Your task to perform on an android device: Go to internet settings Image 0: 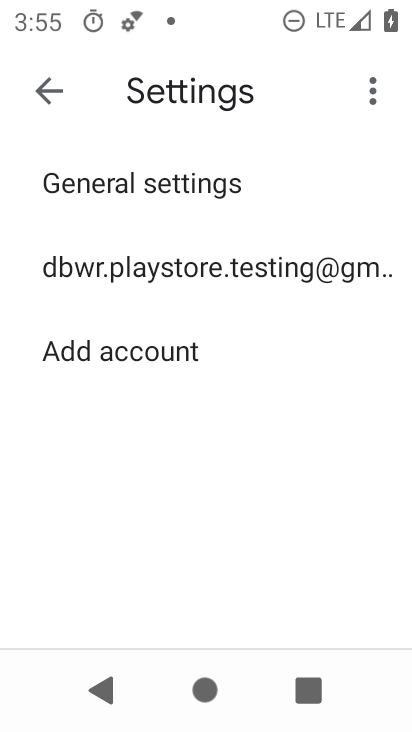
Step 0: press back button
Your task to perform on an android device: Go to internet settings Image 1: 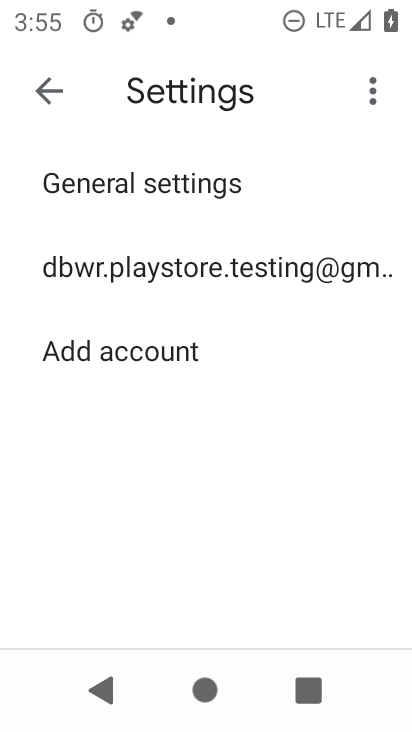
Step 1: press home button
Your task to perform on an android device: Go to internet settings Image 2: 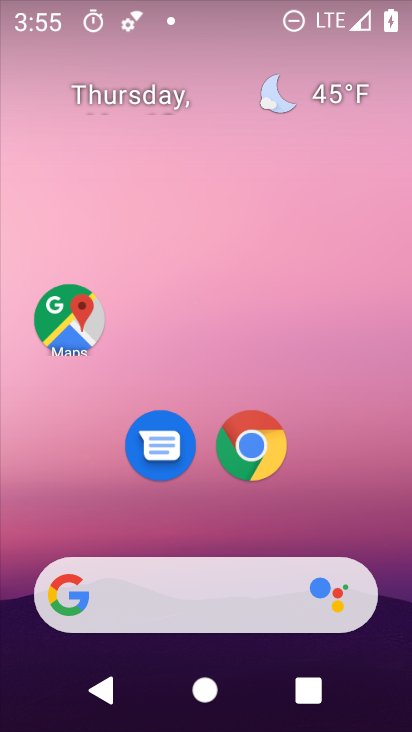
Step 2: drag from (317, 491) to (272, 70)
Your task to perform on an android device: Go to internet settings Image 3: 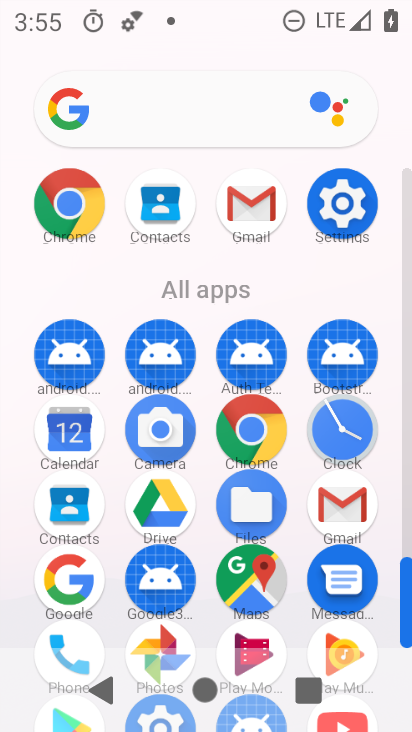
Step 3: click (343, 196)
Your task to perform on an android device: Go to internet settings Image 4: 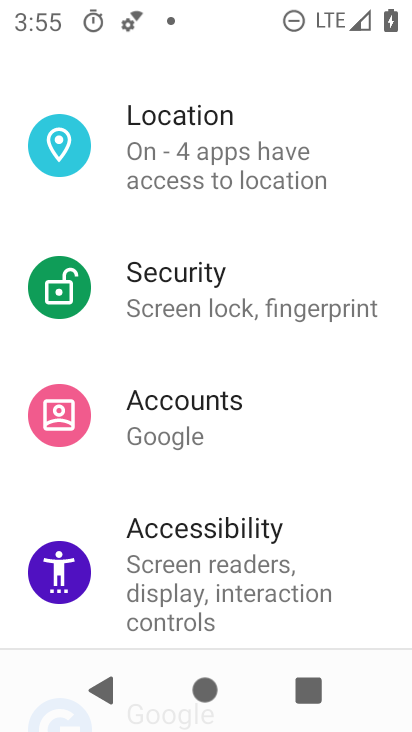
Step 4: drag from (270, 239) to (266, 404)
Your task to perform on an android device: Go to internet settings Image 5: 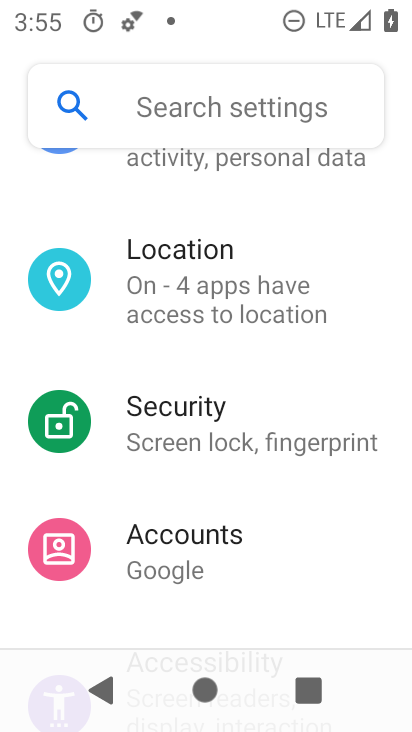
Step 5: drag from (265, 202) to (299, 492)
Your task to perform on an android device: Go to internet settings Image 6: 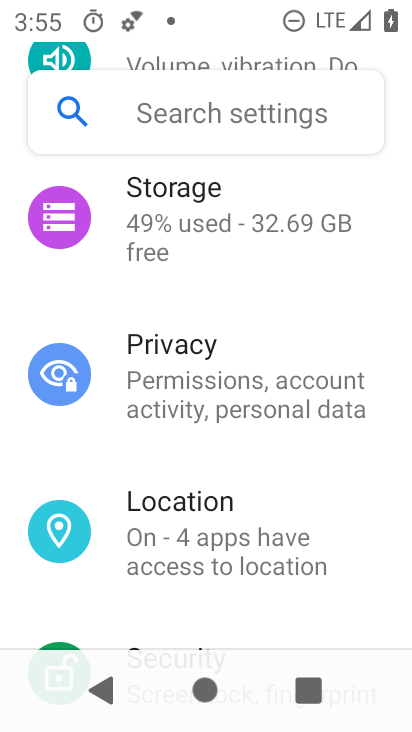
Step 6: drag from (287, 303) to (337, 509)
Your task to perform on an android device: Go to internet settings Image 7: 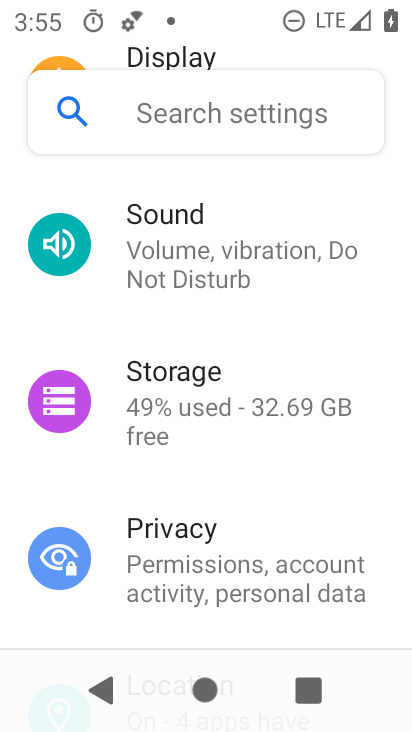
Step 7: drag from (256, 192) to (316, 480)
Your task to perform on an android device: Go to internet settings Image 8: 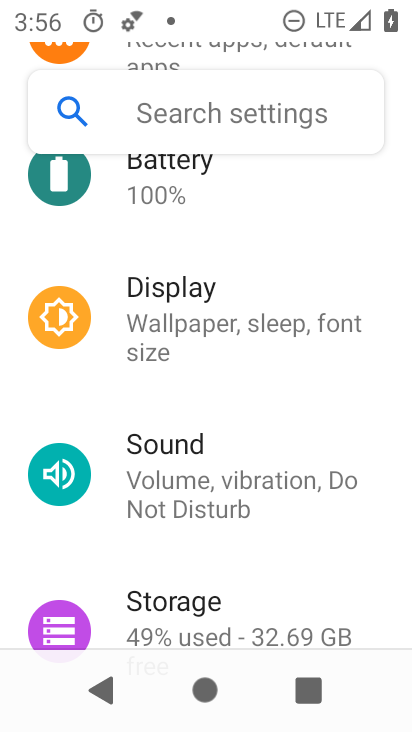
Step 8: drag from (275, 262) to (335, 572)
Your task to perform on an android device: Go to internet settings Image 9: 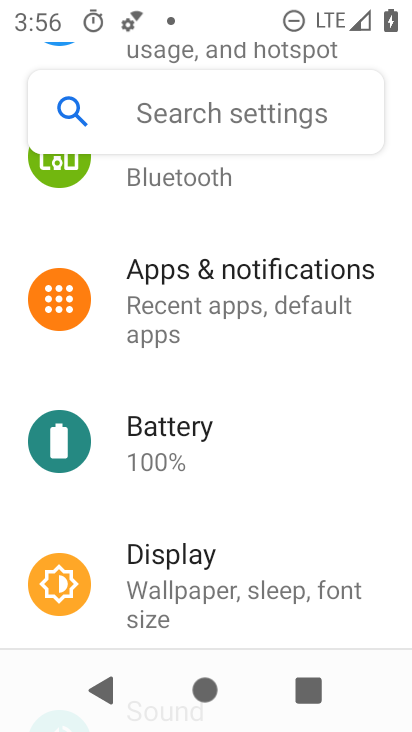
Step 9: drag from (258, 212) to (242, 354)
Your task to perform on an android device: Go to internet settings Image 10: 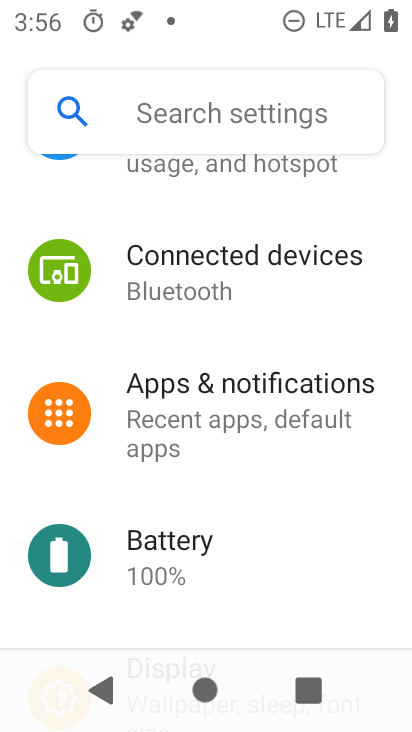
Step 10: drag from (236, 189) to (268, 390)
Your task to perform on an android device: Go to internet settings Image 11: 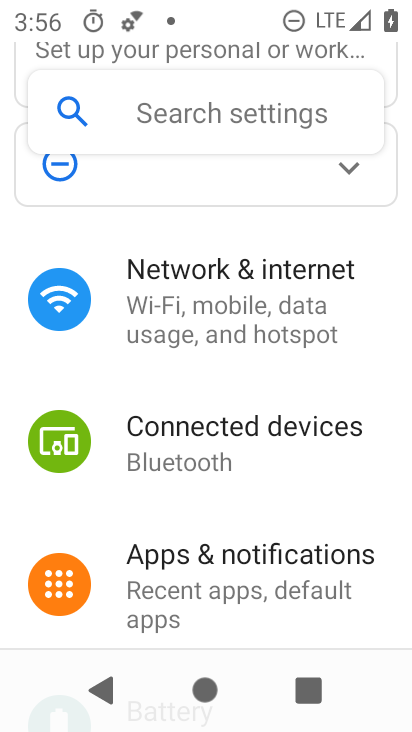
Step 11: click (291, 269)
Your task to perform on an android device: Go to internet settings Image 12: 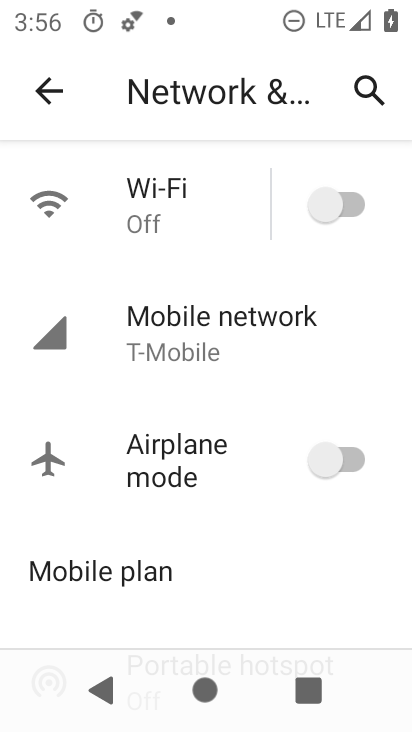
Step 12: task complete